Your task to perform on an android device: Open Google Chrome Image 0: 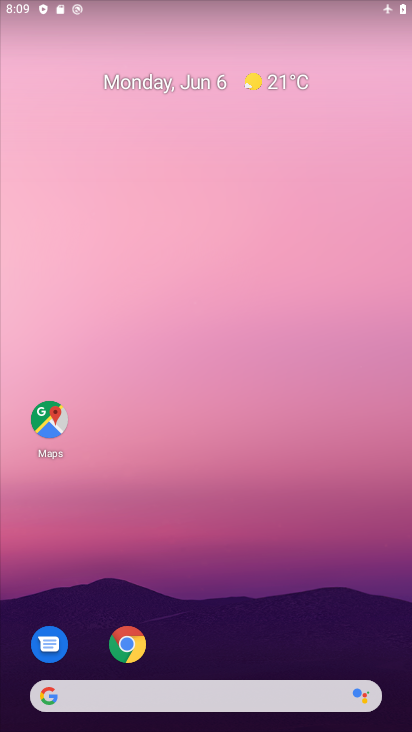
Step 0: click (132, 656)
Your task to perform on an android device: Open Google Chrome Image 1: 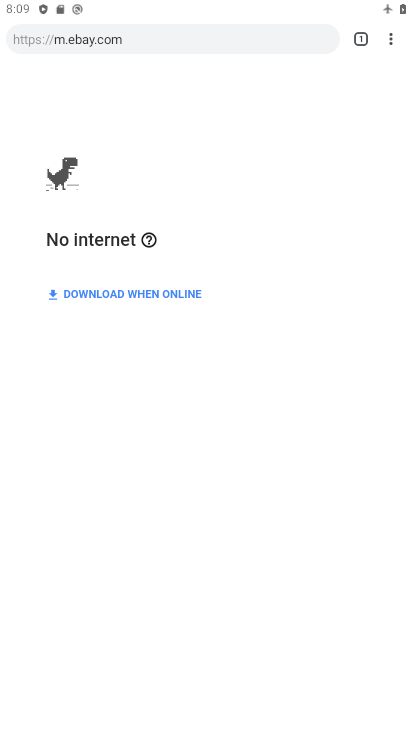
Step 1: click (354, 44)
Your task to perform on an android device: Open Google Chrome Image 2: 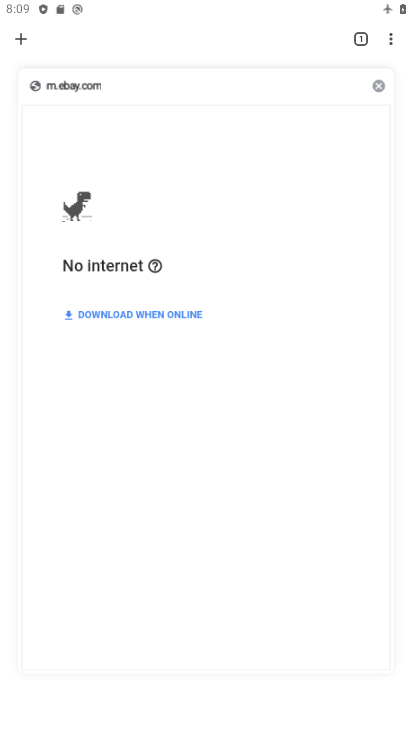
Step 2: click (27, 46)
Your task to perform on an android device: Open Google Chrome Image 3: 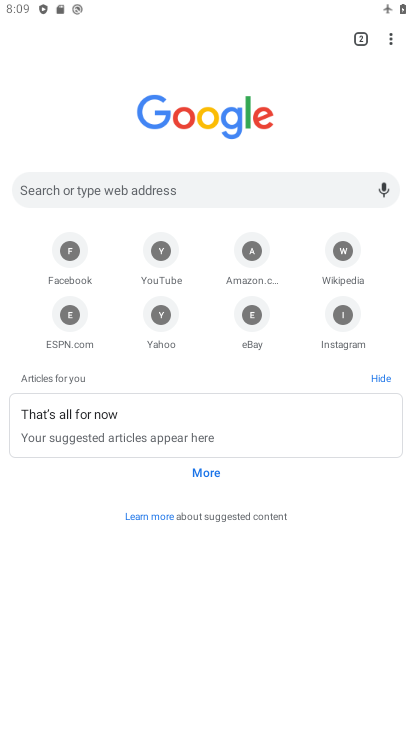
Step 3: task complete